Your task to perform on an android device: toggle sleep mode Image 0: 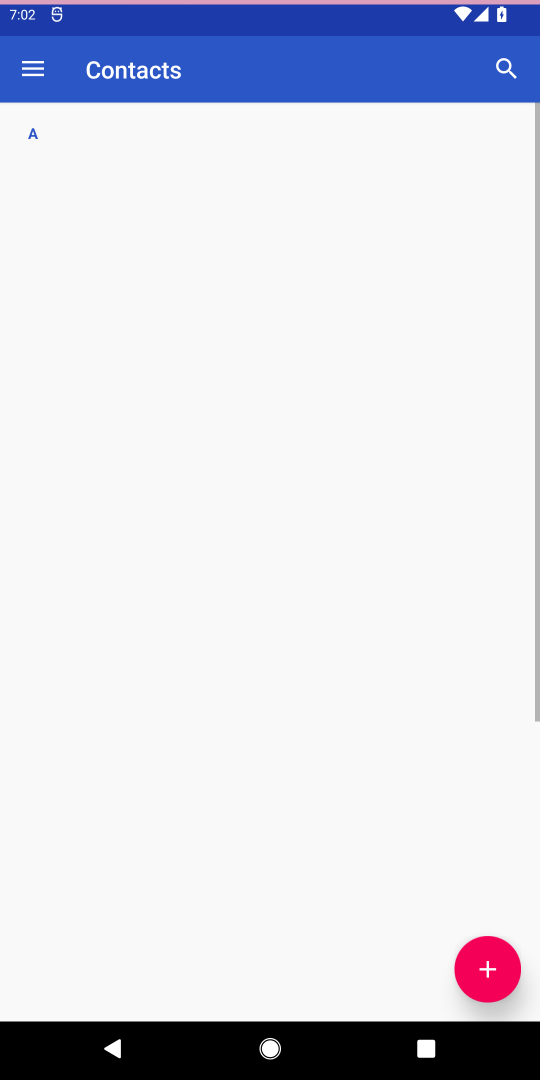
Step 0: press home button
Your task to perform on an android device: toggle sleep mode Image 1: 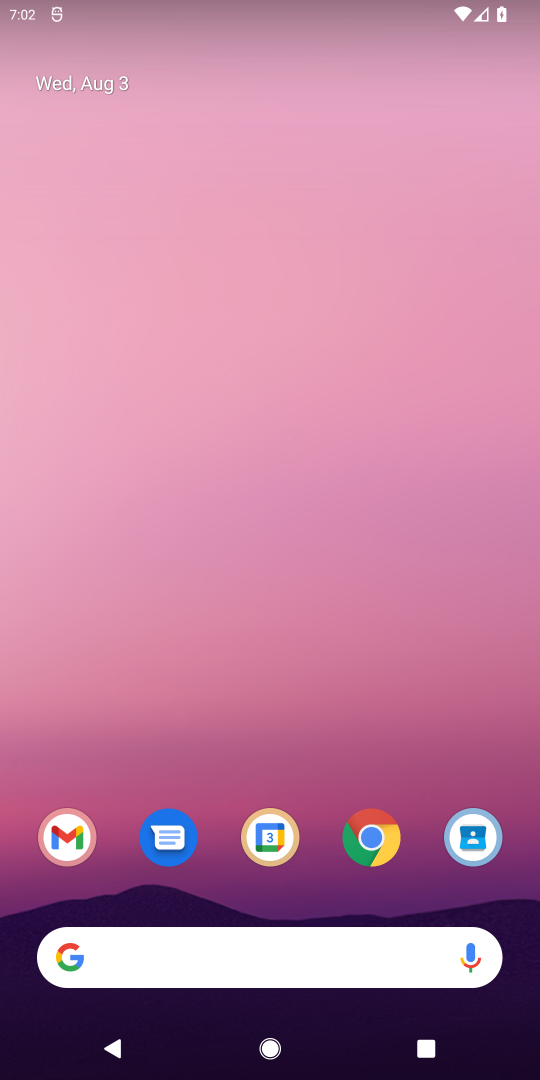
Step 1: press home button
Your task to perform on an android device: toggle sleep mode Image 2: 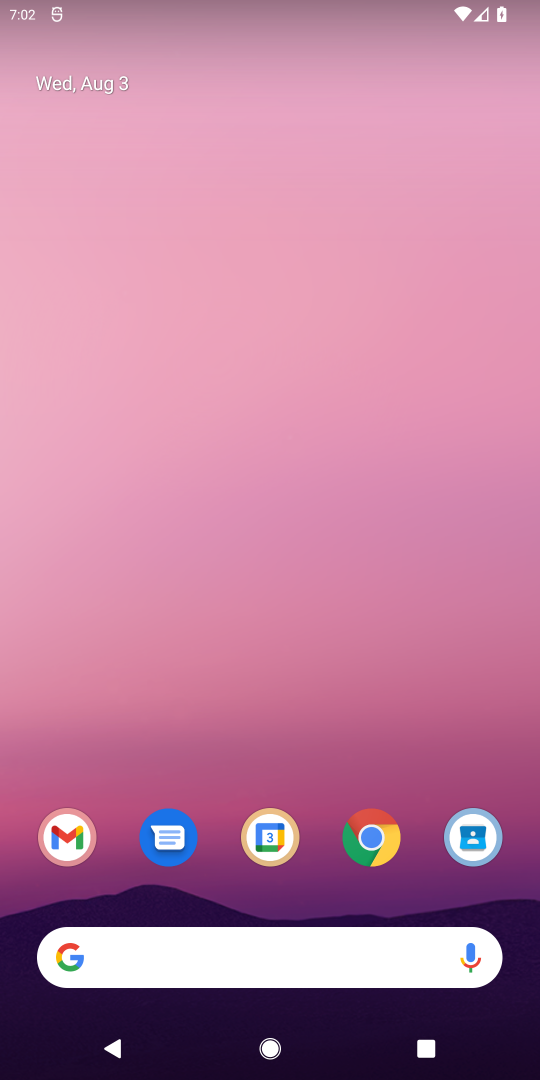
Step 2: drag from (426, 762) to (340, 82)
Your task to perform on an android device: toggle sleep mode Image 3: 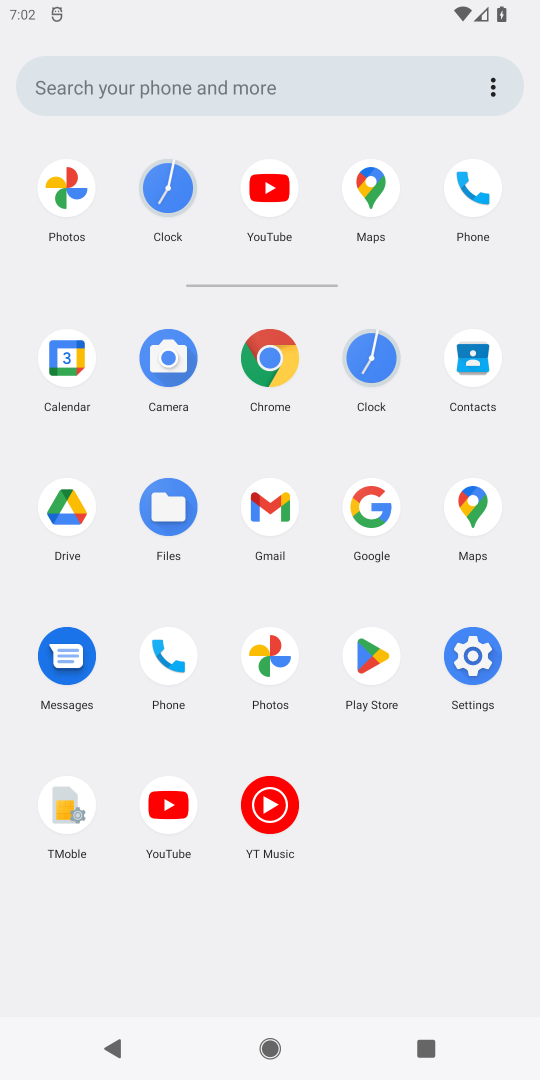
Step 3: click (494, 664)
Your task to perform on an android device: toggle sleep mode Image 4: 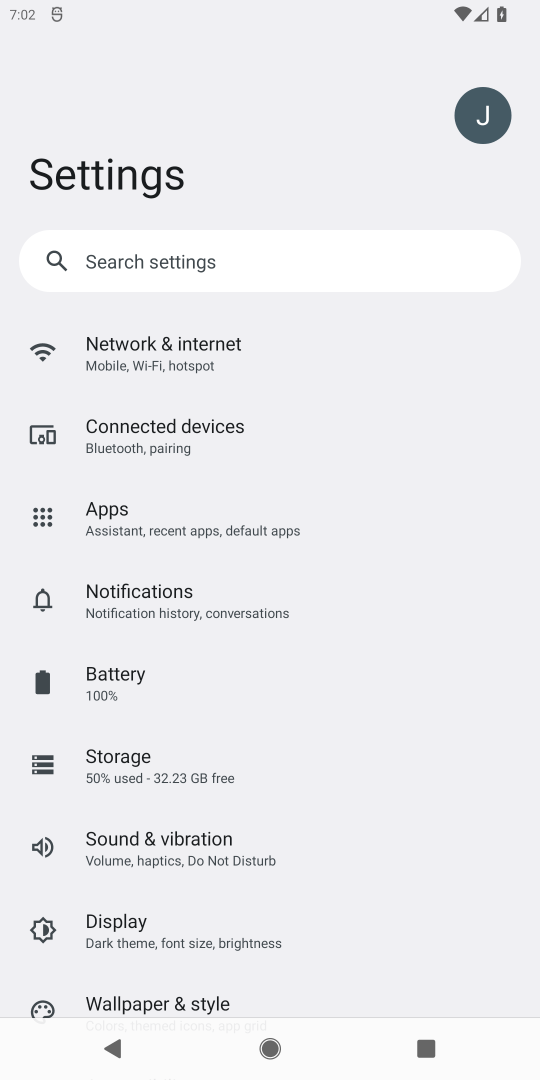
Step 4: click (207, 922)
Your task to perform on an android device: toggle sleep mode Image 5: 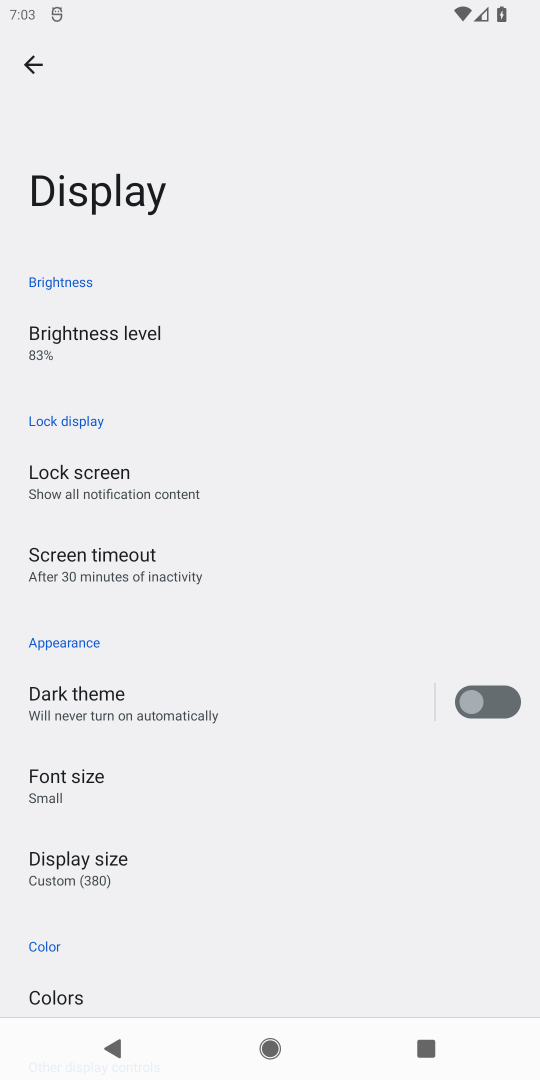
Step 5: task complete